Your task to perform on an android device: toggle show notifications on the lock screen Image 0: 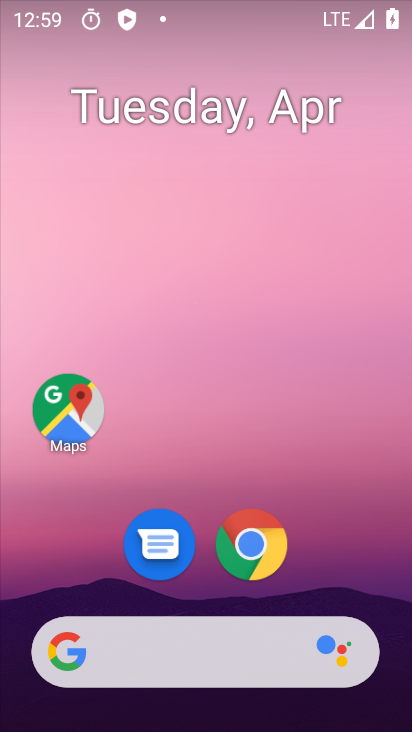
Step 0: drag from (357, 598) to (370, 39)
Your task to perform on an android device: toggle show notifications on the lock screen Image 1: 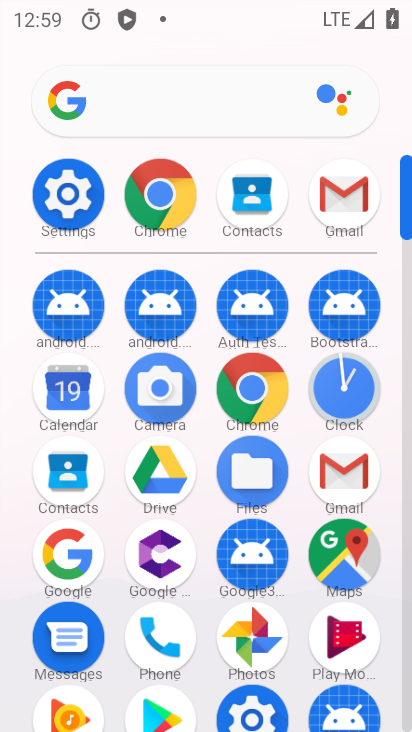
Step 1: click (60, 196)
Your task to perform on an android device: toggle show notifications on the lock screen Image 2: 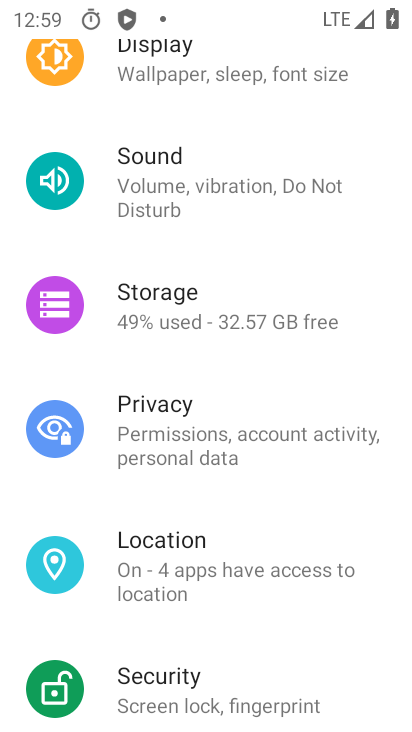
Step 2: drag from (382, 138) to (404, 516)
Your task to perform on an android device: toggle show notifications on the lock screen Image 3: 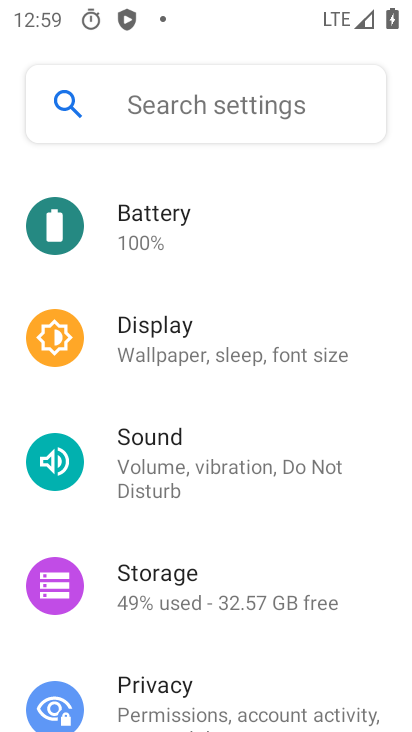
Step 3: drag from (371, 262) to (383, 563)
Your task to perform on an android device: toggle show notifications on the lock screen Image 4: 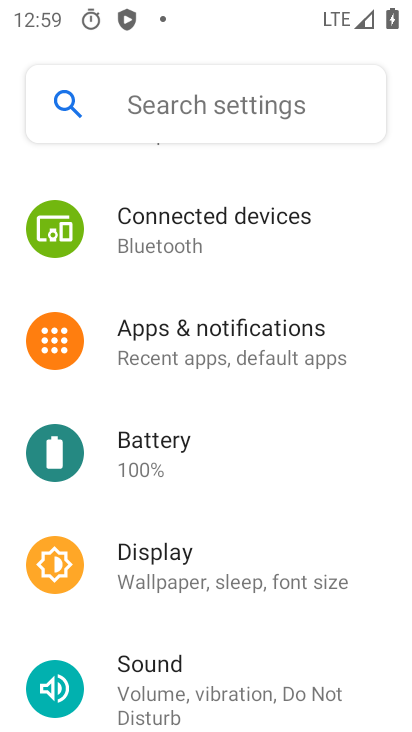
Step 4: click (210, 344)
Your task to perform on an android device: toggle show notifications on the lock screen Image 5: 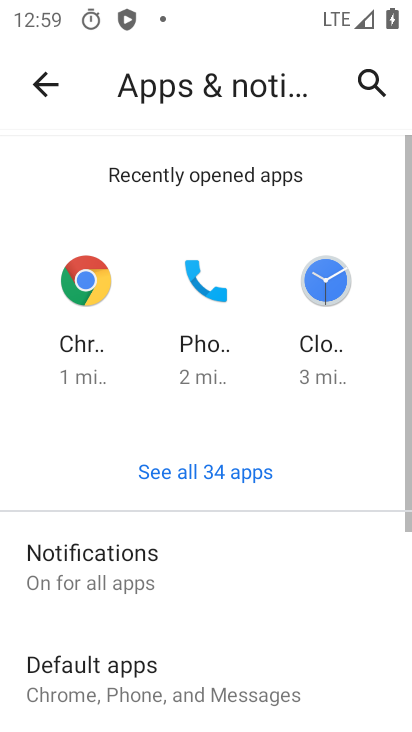
Step 5: click (88, 579)
Your task to perform on an android device: toggle show notifications on the lock screen Image 6: 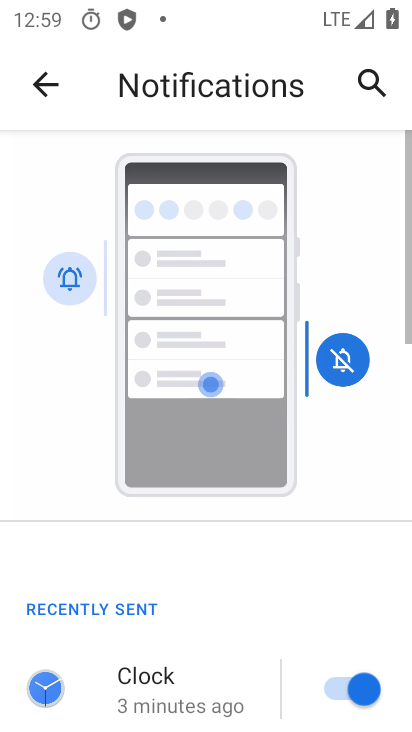
Step 6: drag from (315, 623) to (276, 169)
Your task to perform on an android device: toggle show notifications on the lock screen Image 7: 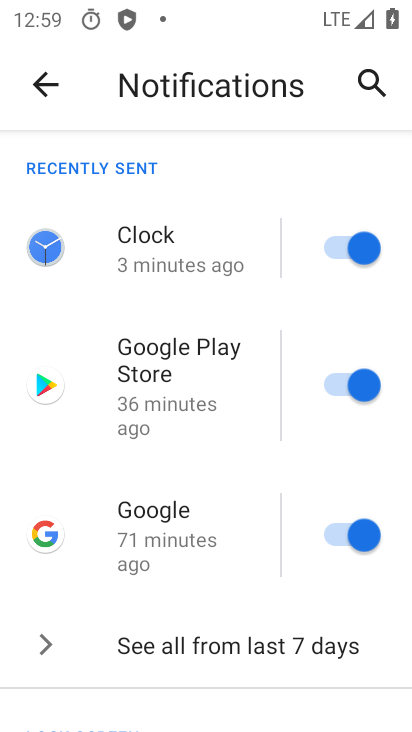
Step 7: drag from (251, 552) to (247, 198)
Your task to perform on an android device: toggle show notifications on the lock screen Image 8: 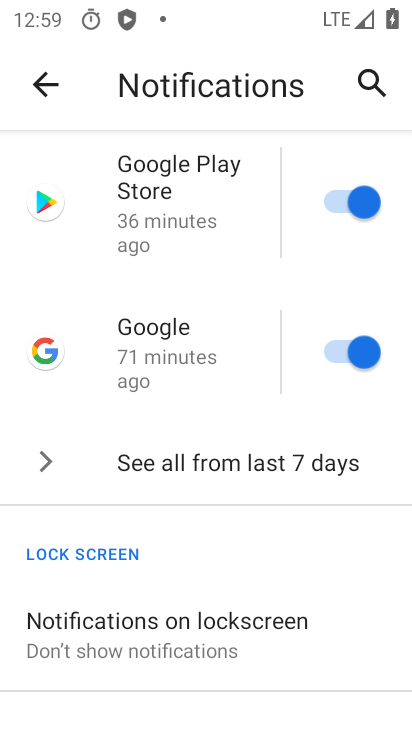
Step 8: drag from (281, 518) to (245, 274)
Your task to perform on an android device: toggle show notifications on the lock screen Image 9: 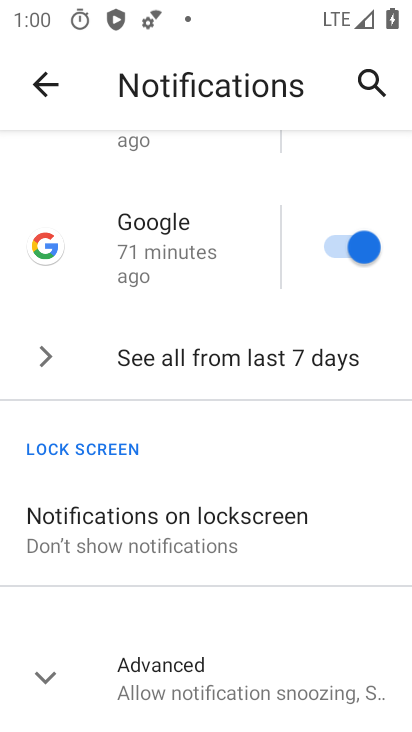
Step 9: click (138, 528)
Your task to perform on an android device: toggle show notifications on the lock screen Image 10: 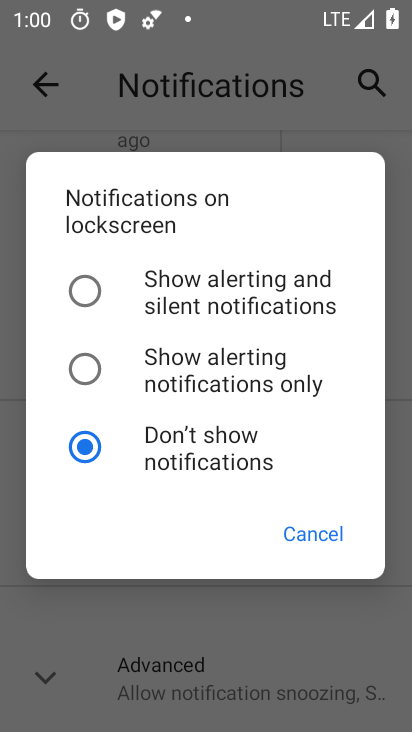
Step 10: click (89, 294)
Your task to perform on an android device: toggle show notifications on the lock screen Image 11: 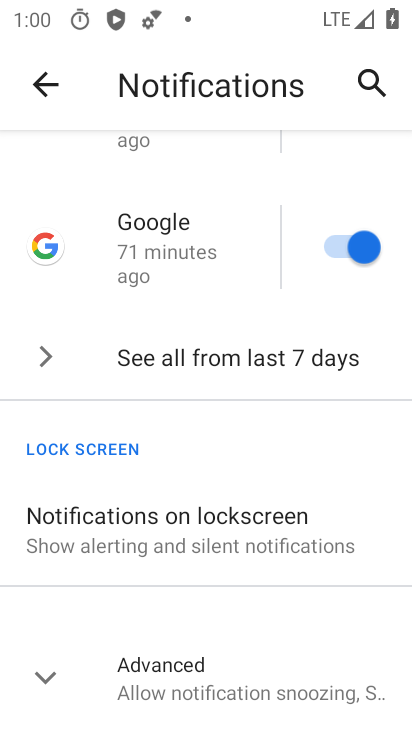
Step 11: task complete